Your task to perform on an android device: check android version Image 0: 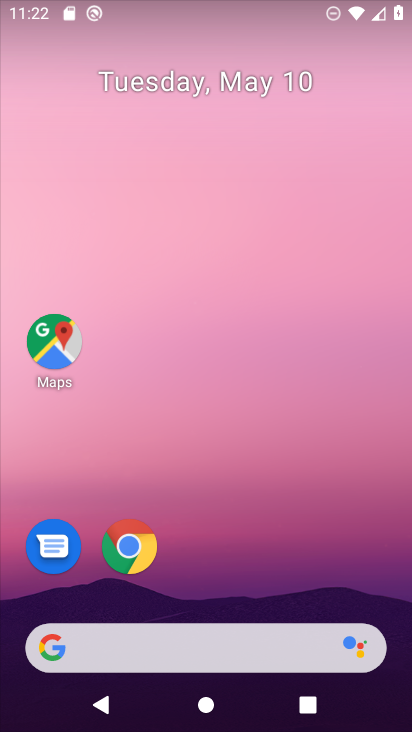
Step 0: drag from (269, 603) to (281, 115)
Your task to perform on an android device: check android version Image 1: 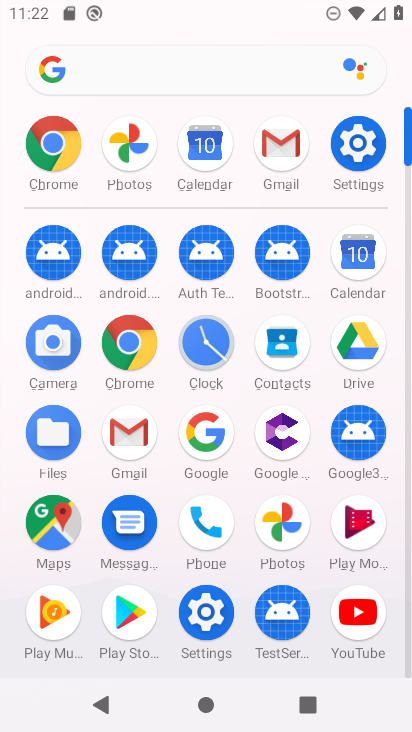
Step 1: click (347, 147)
Your task to perform on an android device: check android version Image 2: 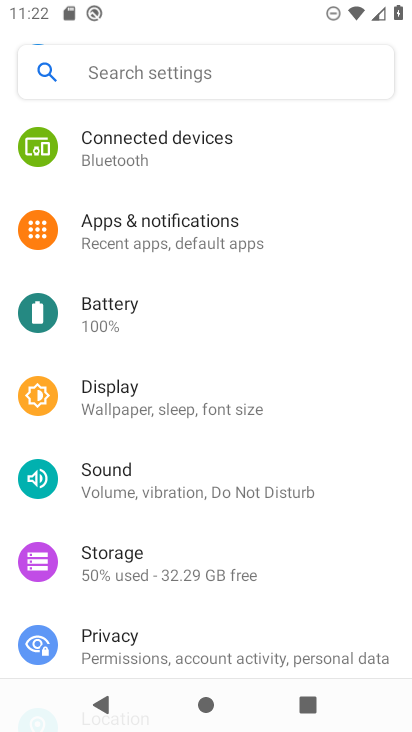
Step 2: task complete